Your task to perform on an android device: empty trash in google photos Image 0: 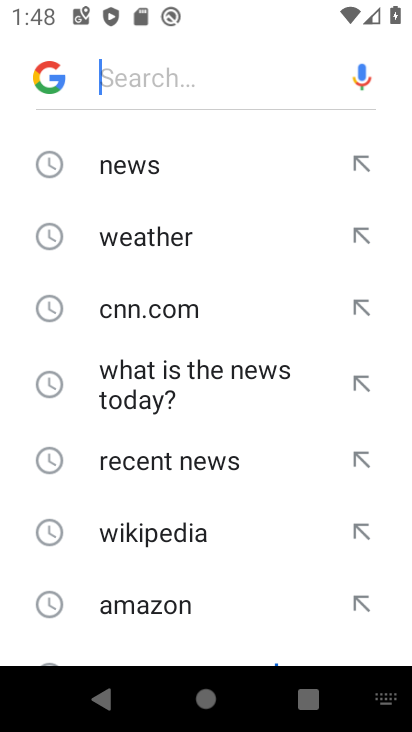
Step 0: press home button
Your task to perform on an android device: empty trash in google photos Image 1: 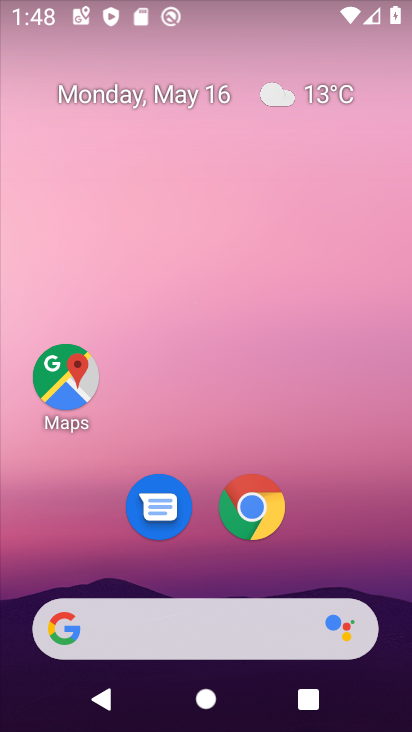
Step 1: drag from (375, 550) to (339, 183)
Your task to perform on an android device: empty trash in google photos Image 2: 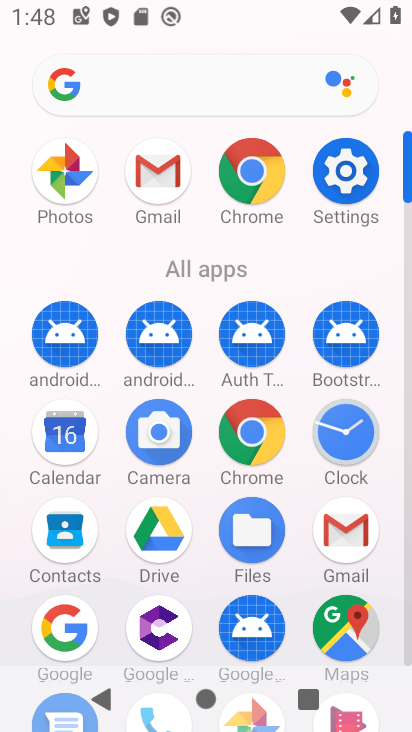
Step 2: drag from (201, 451) to (205, 268)
Your task to perform on an android device: empty trash in google photos Image 3: 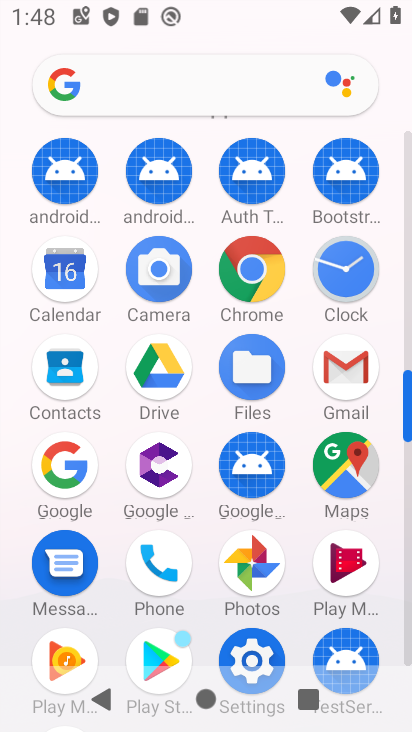
Step 3: click (254, 566)
Your task to perform on an android device: empty trash in google photos Image 4: 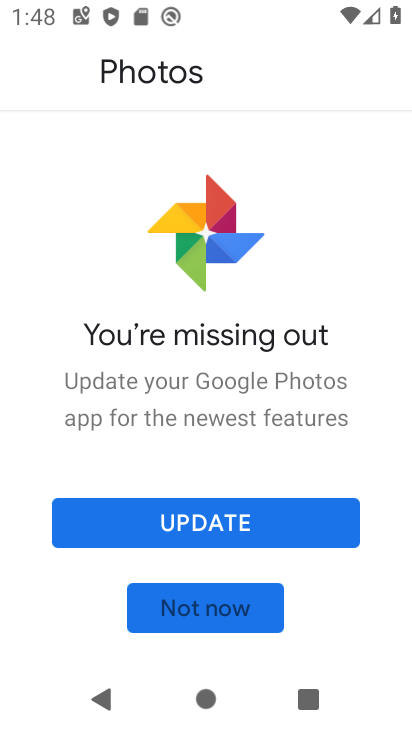
Step 4: click (251, 523)
Your task to perform on an android device: empty trash in google photos Image 5: 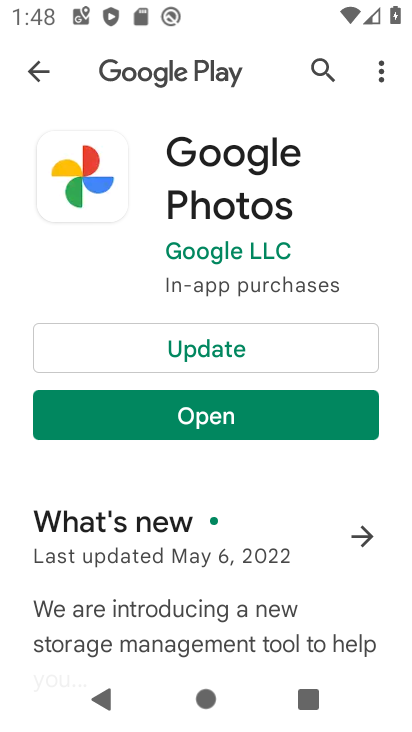
Step 5: click (235, 336)
Your task to perform on an android device: empty trash in google photos Image 6: 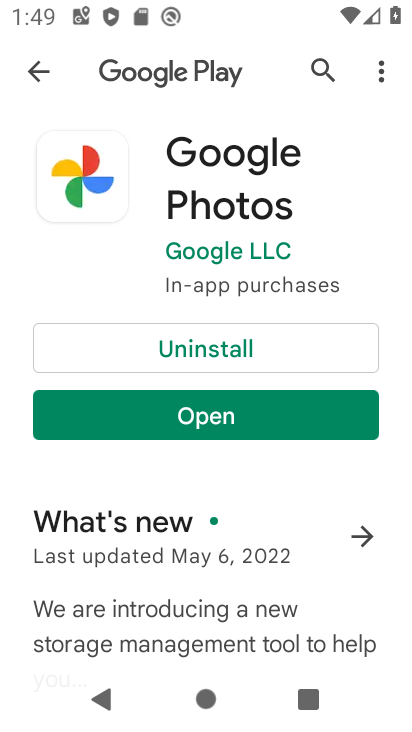
Step 6: click (327, 424)
Your task to perform on an android device: empty trash in google photos Image 7: 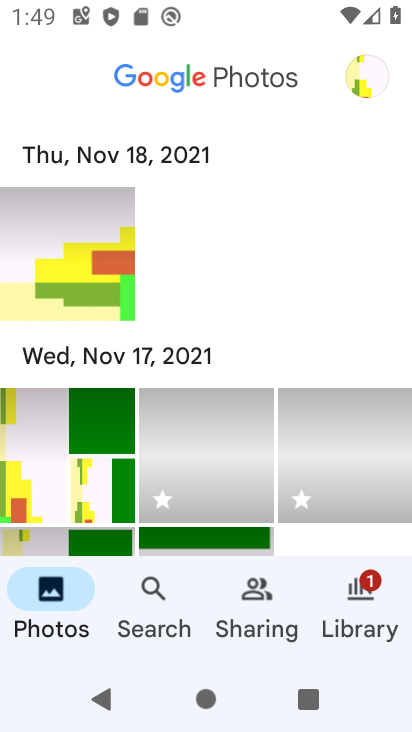
Step 7: click (368, 616)
Your task to perform on an android device: empty trash in google photos Image 8: 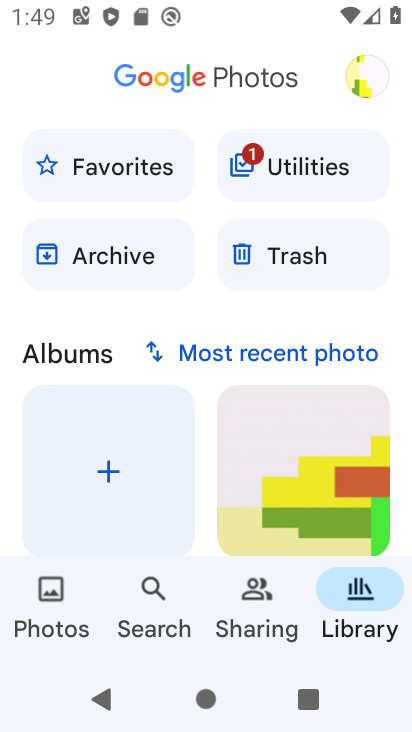
Step 8: click (284, 252)
Your task to perform on an android device: empty trash in google photos Image 9: 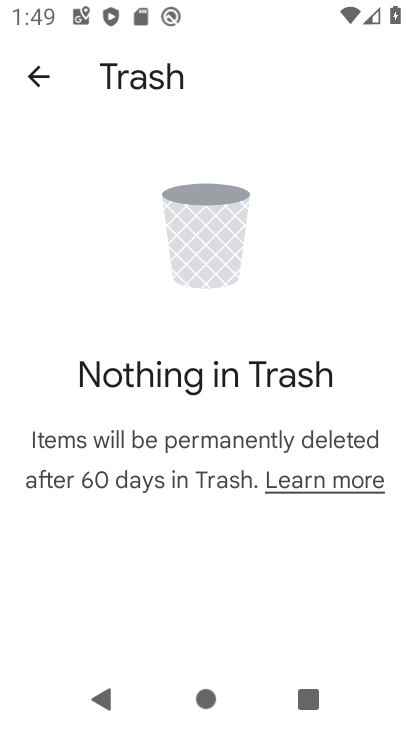
Step 9: task complete